Your task to perform on an android device: show emergency info Image 0: 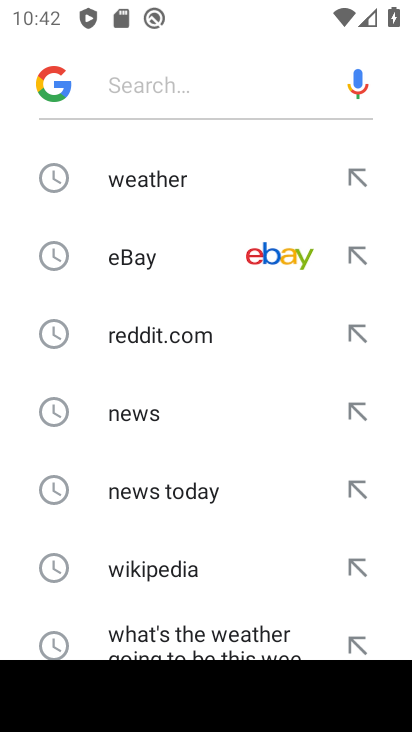
Step 0: press home button
Your task to perform on an android device: show emergency info Image 1: 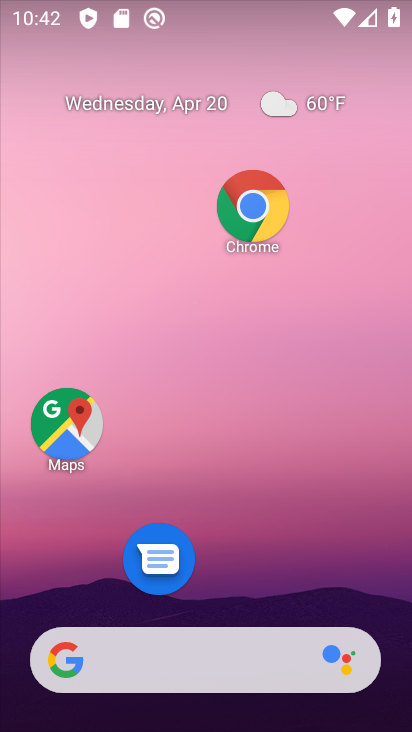
Step 1: drag from (277, 568) to (270, 4)
Your task to perform on an android device: show emergency info Image 2: 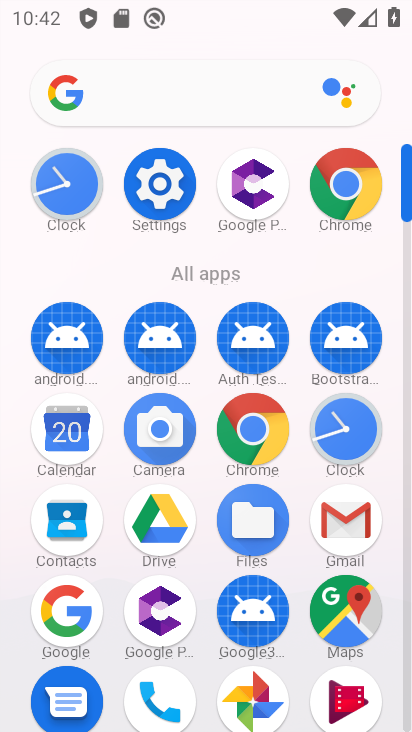
Step 2: drag from (299, 611) to (304, 46)
Your task to perform on an android device: show emergency info Image 3: 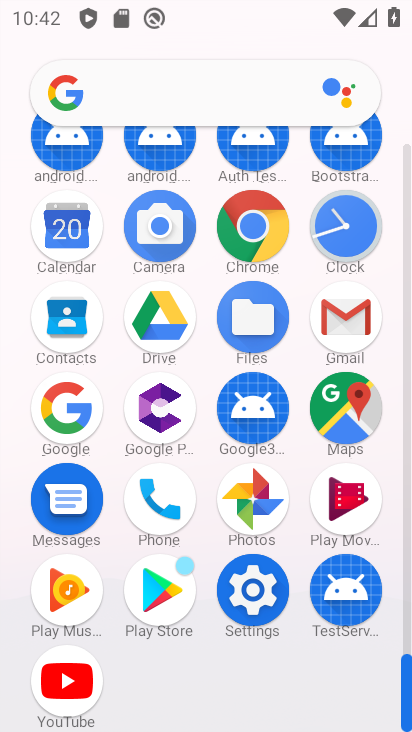
Step 3: click (251, 583)
Your task to perform on an android device: show emergency info Image 4: 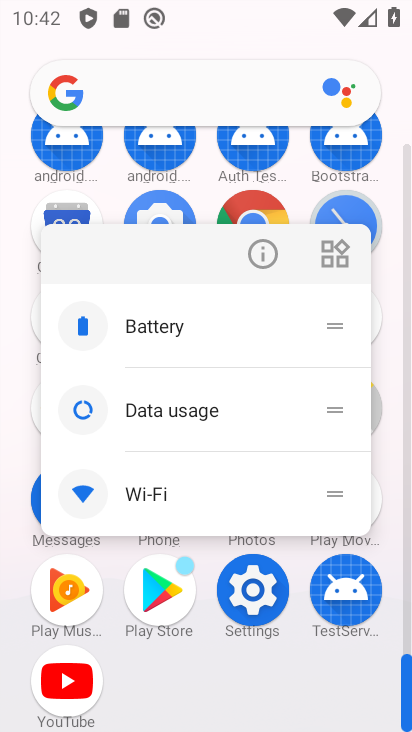
Step 4: click (251, 583)
Your task to perform on an android device: show emergency info Image 5: 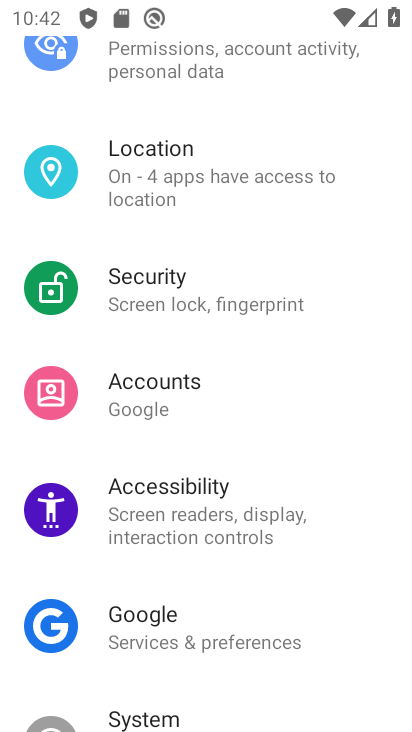
Step 5: drag from (240, 622) to (253, 155)
Your task to perform on an android device: show emergency info Image 6: 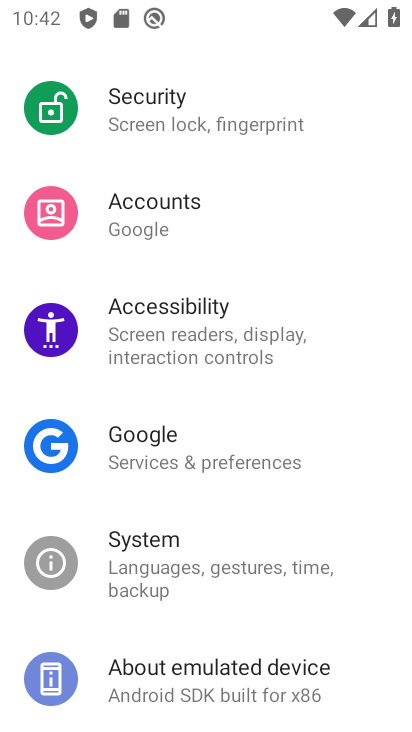
Step 6: click (261, 727)
Your task to perform on an android device: show emergency info Image 7: 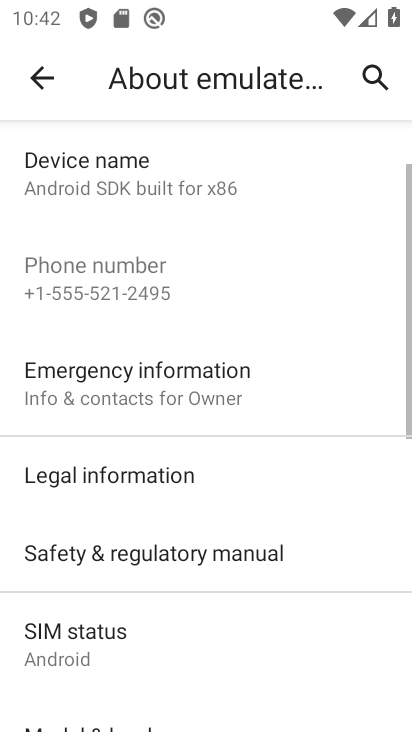
Step 7: click (231, 386)
Your task to perform on an android device: show emergency info Image 8: 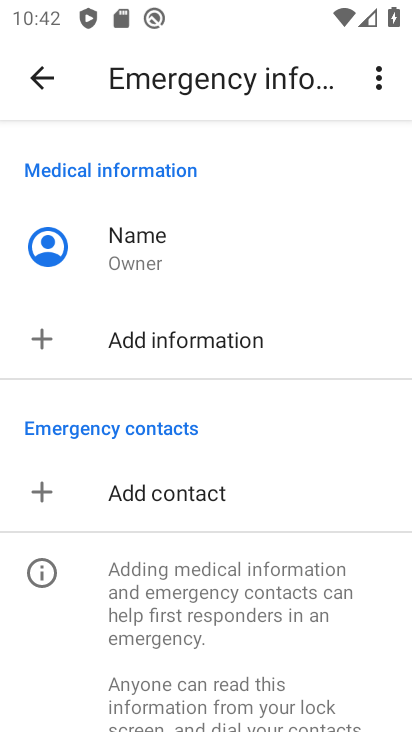
Step 8: task complete